Your task to perform on an android device: Open calendar and show me the third week of next month Image 0: 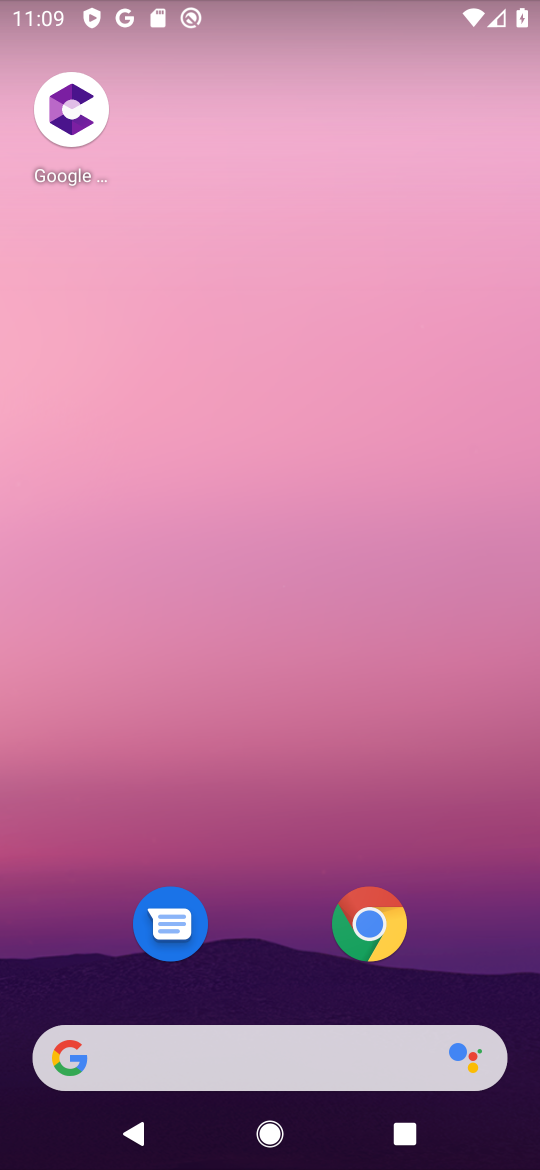
Step 0: drag from (243, 971) to (318, 187)
Your task to perform on an android device: Open calendar and show me the third week of next month Image 1: 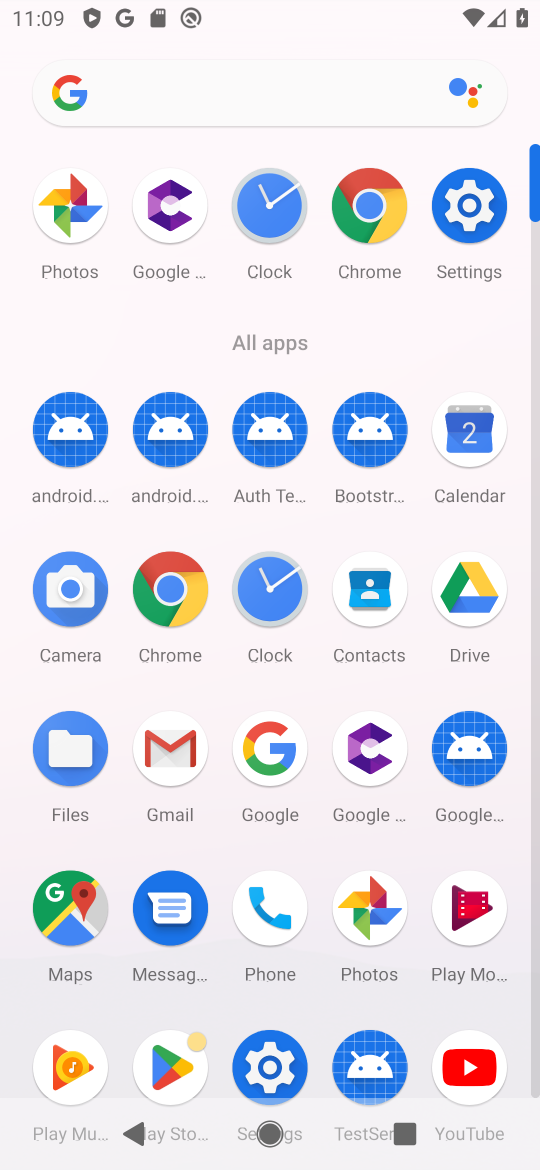
Step 1: click (487, 416)
Your task to perform on an android device: Open calendar and show me the third week of next month Image 2: 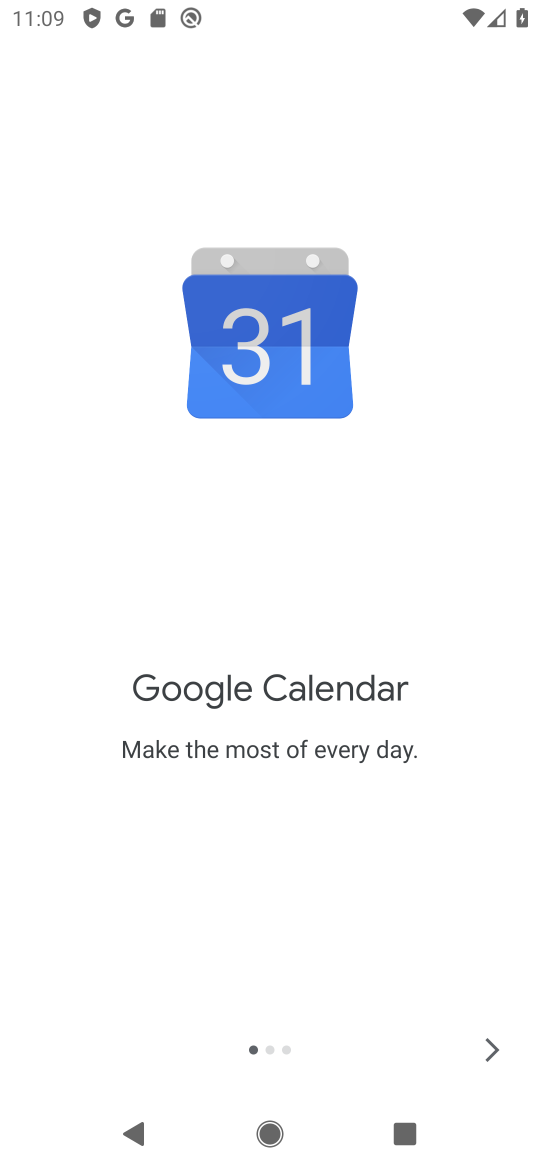
Step 2: click (476, 1032)
Your task to perform on an android device: Open calendar and show me the third week of next month Image 3: 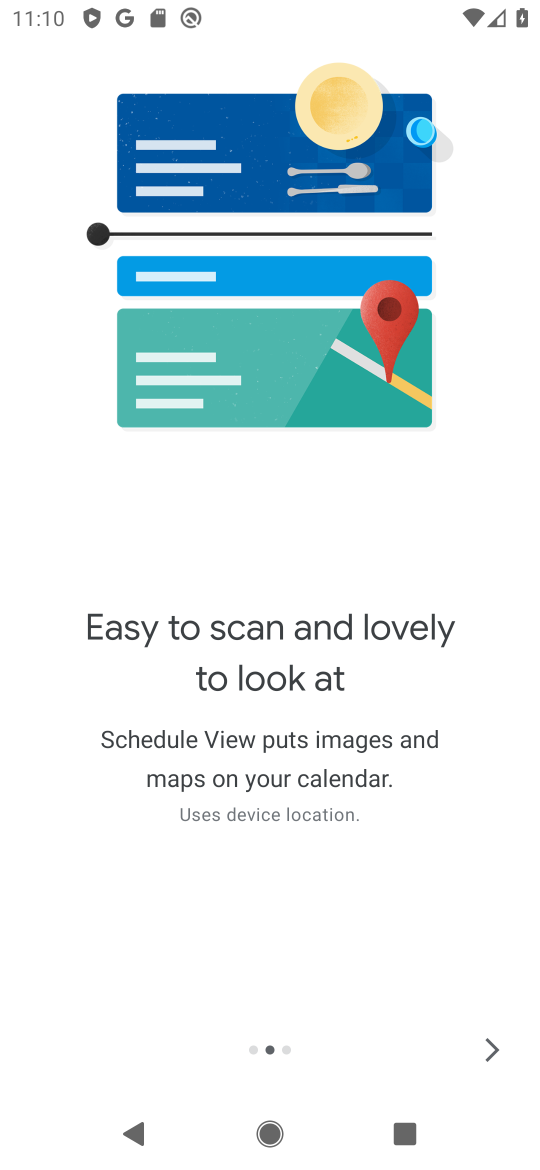
Step 3: click (489, 1035)
Your task to perform on an android device: Open calendar and show me the third week of next month Image 4: 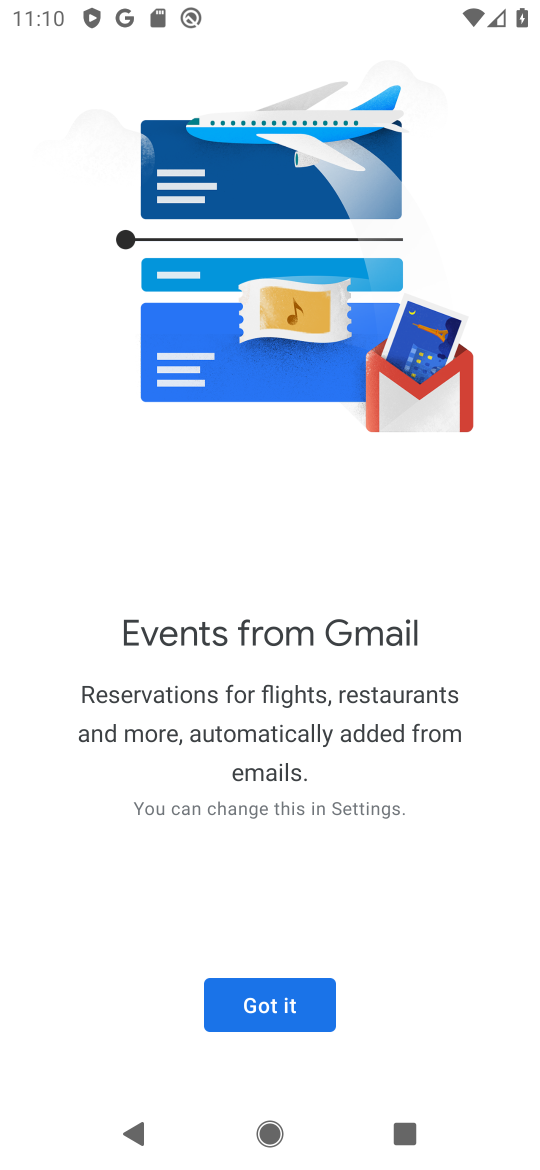
Step 4: click (291, 1010)
Your task to perform on an android device: Open calendar and show me the third week of next month Image 5: 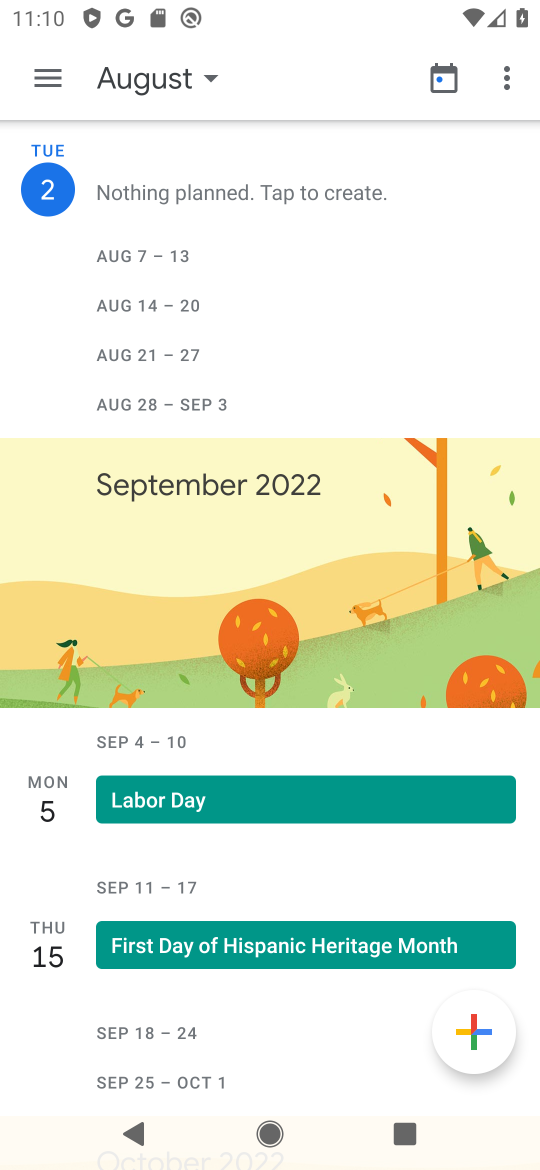
Step 5: click (46, 79)
Your task to perform on an android device: Open calendar and show me the third week of next month Image 6: 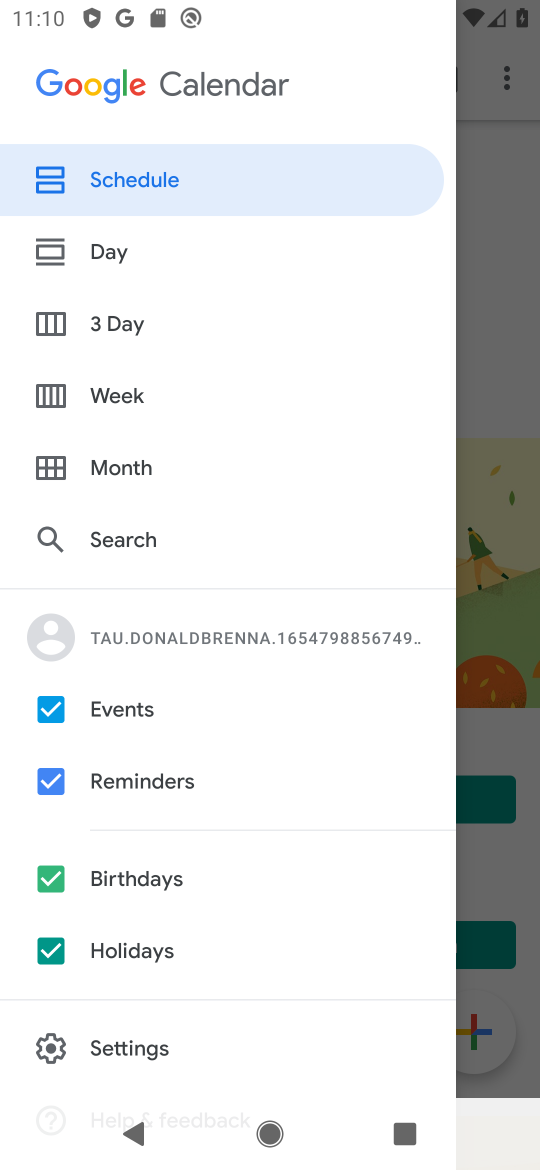
Step 6: click (126, 475)
Your task to perform on an android device: Open calendar and show me the third week of next month Image 7: 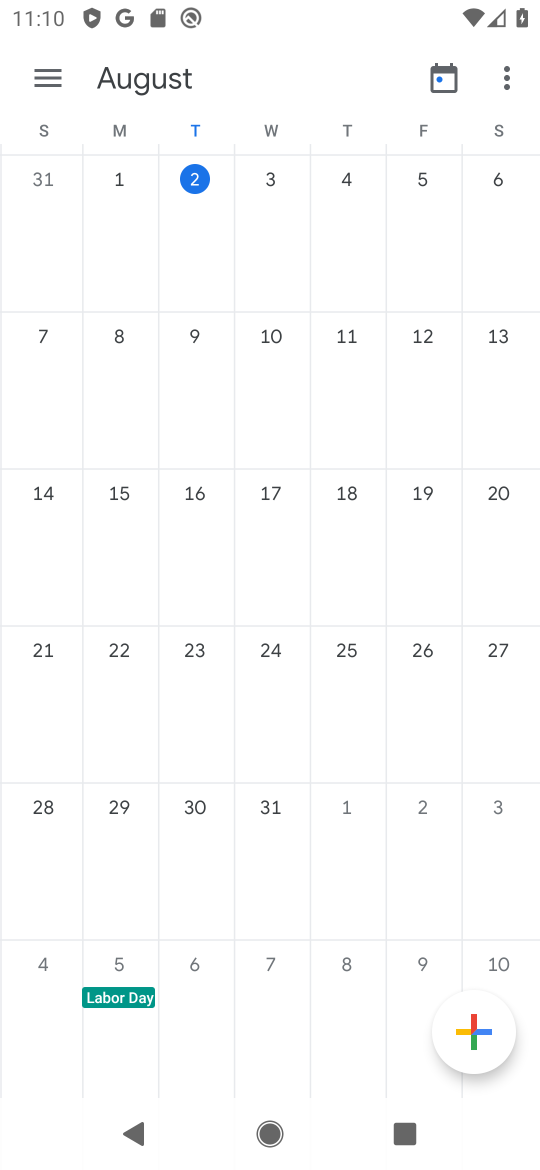
Step 7: drag from (368, 445) to (14, 417)
Your task to perform on an android device: Open calendar and show me the third week of next month Image 8: 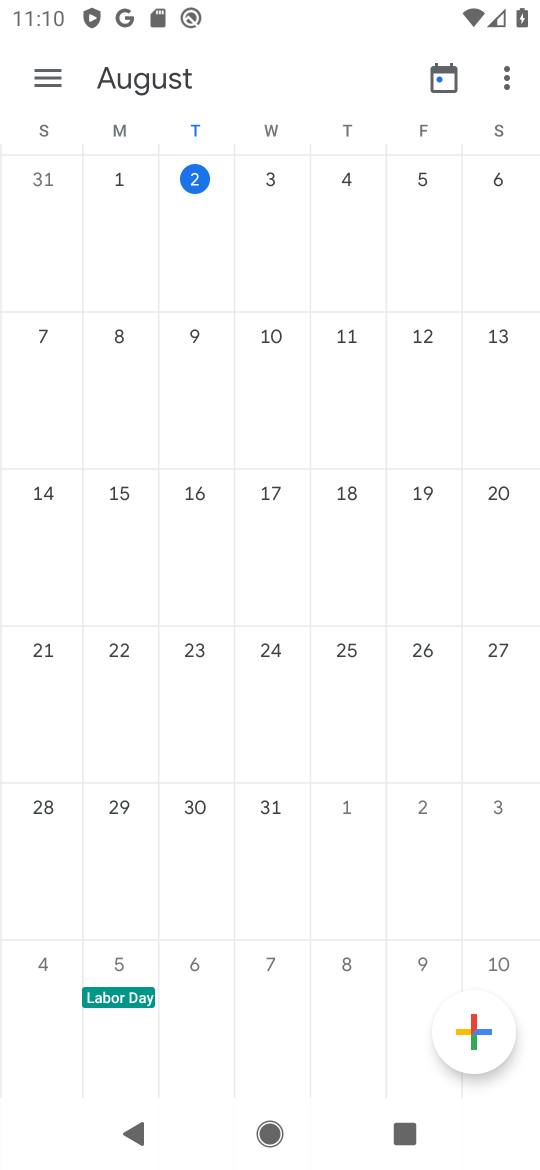
Step 8: drag from (415, 550) to (6, 413)
Your task to perform on an android device: Open calendar and show me the third week of next month Image 9: 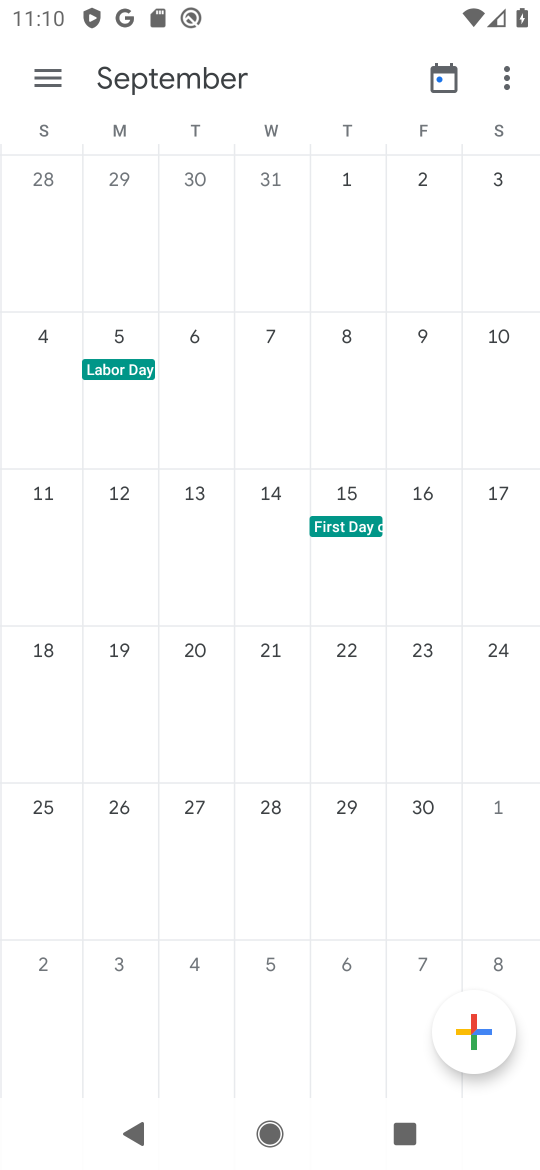
Step 9: click (38, 73)
Your task to perform on an android device: Open calendar and show me the third week of next month Image 10: 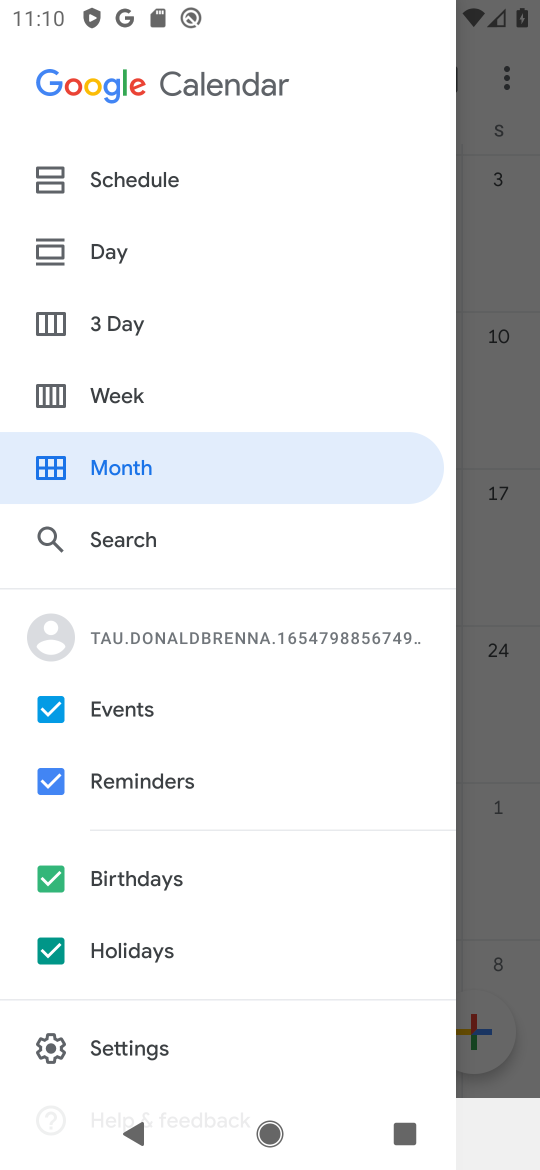
Step 10: click (153, 381)
Your task to perform on an android device: Open calendar and show me the third week of next month Image 11: 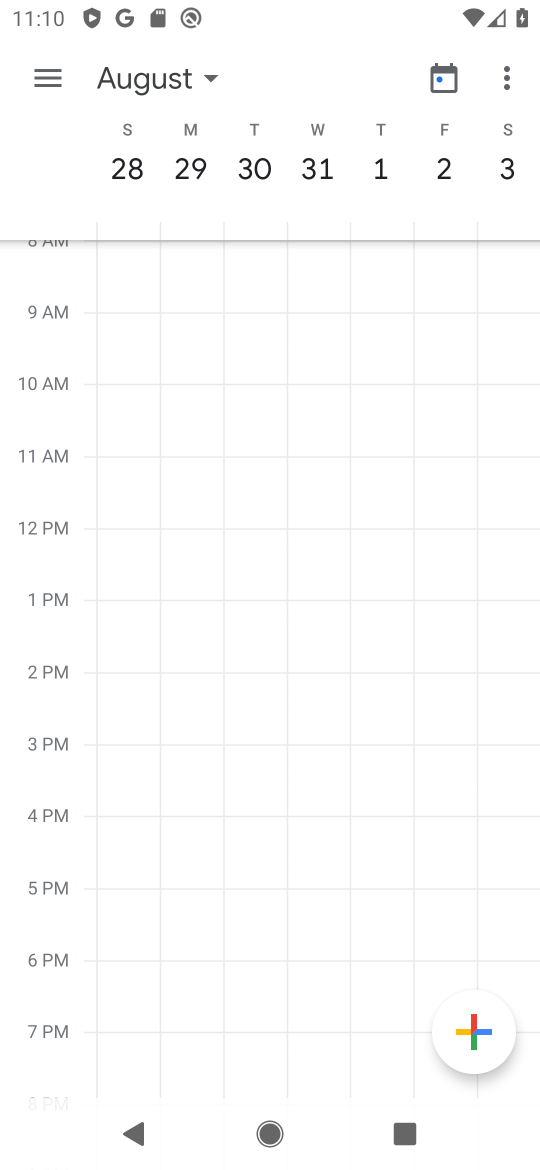
Step 11: task complete